Your task to perform on an android device: turn on bluetooth scan Image 0: 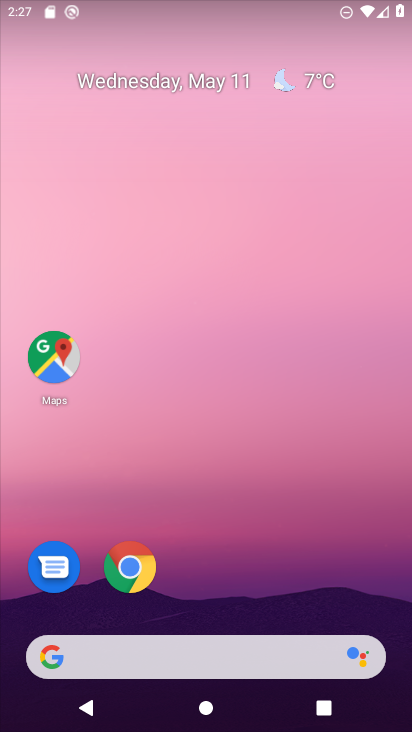
Step 0: drag from (317, 554) to (241, 138)
Your task to perform on an android device: turn on bluetooth scan Image 1: 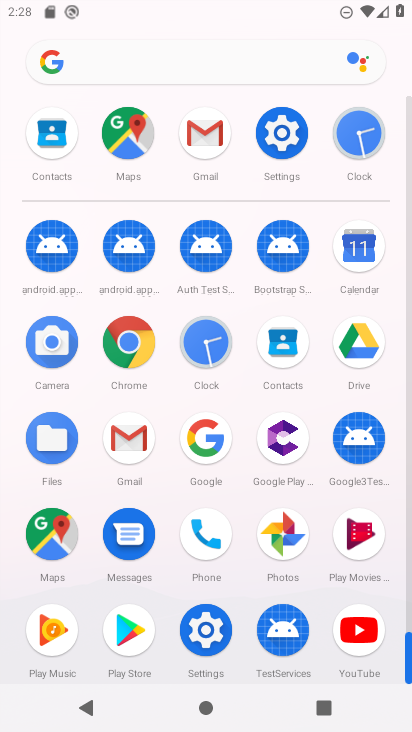
Step 1: click (210, 613)
Your task to perform on an android device: turn on bluetooth scan Image 2: 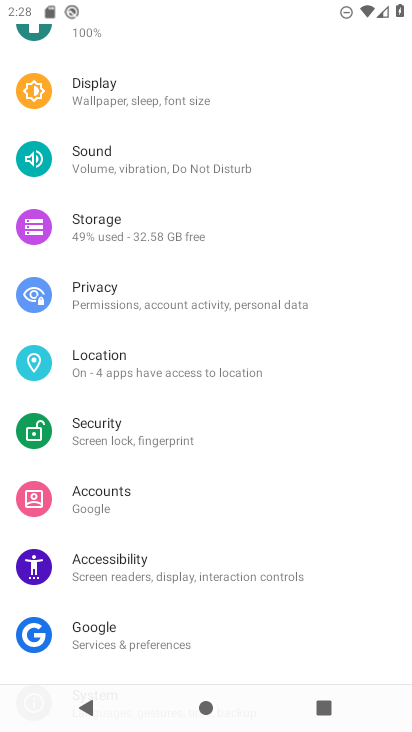
Step 2: click (83, 374)
Your task to perform on an android device: turn on bluetooth scan Image 3: 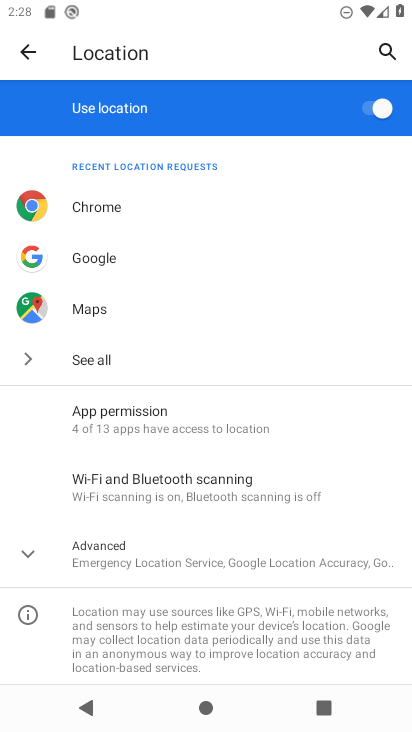
Step 3: click (116, 555)
Your task to perform on an android device: turn on bluetooth scan Image 4: 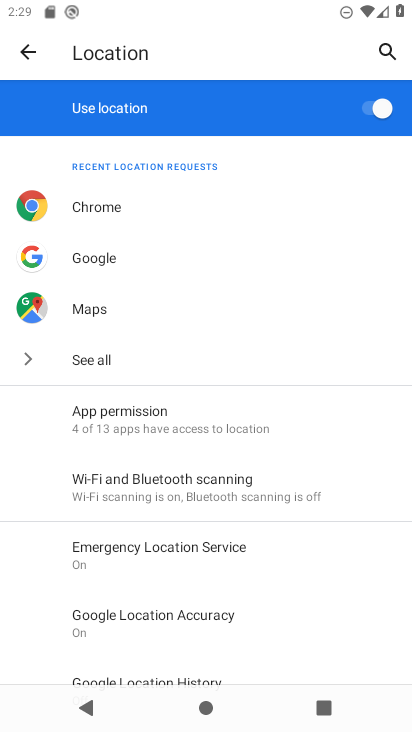
Step 4: click (148, 491)
Your task to perform on an android device: turn on bluetooth scan Image 5: 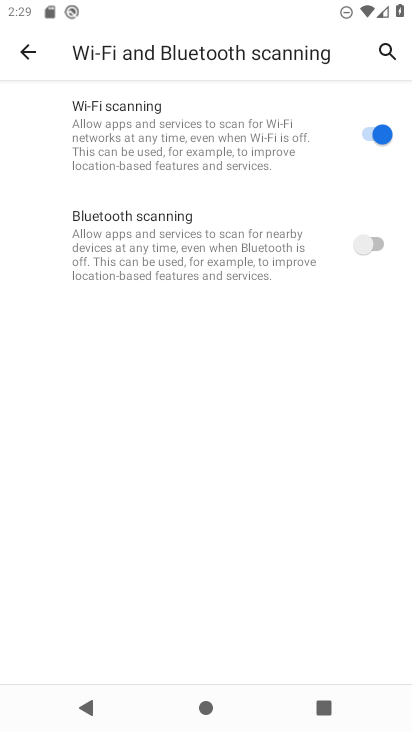
Step 5: click (370, 245)
Your task to perform on an android device: turn on bluetooth scan Image 6: 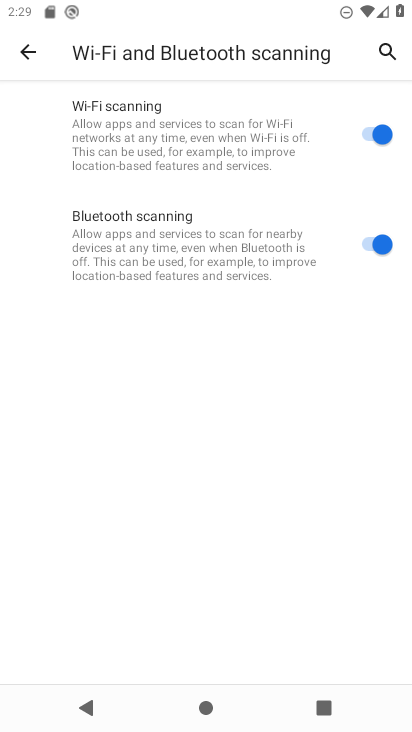
Step 6: task complete